Your task to perform on an android device: Go to battery settings Image 0: 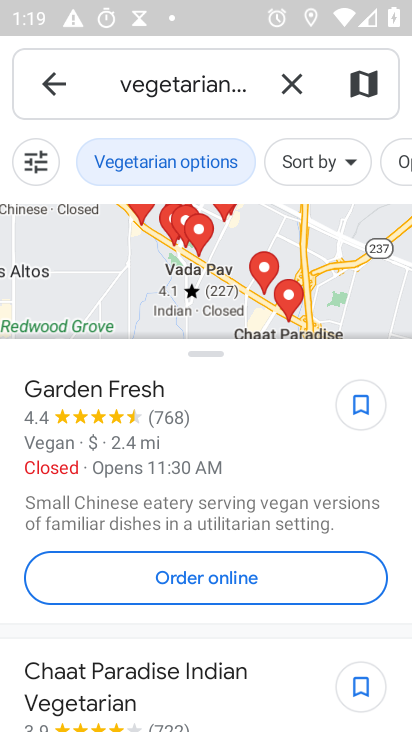
Step 0: press home button
Your task to perform on an android device: Go to battery settings Image 1: 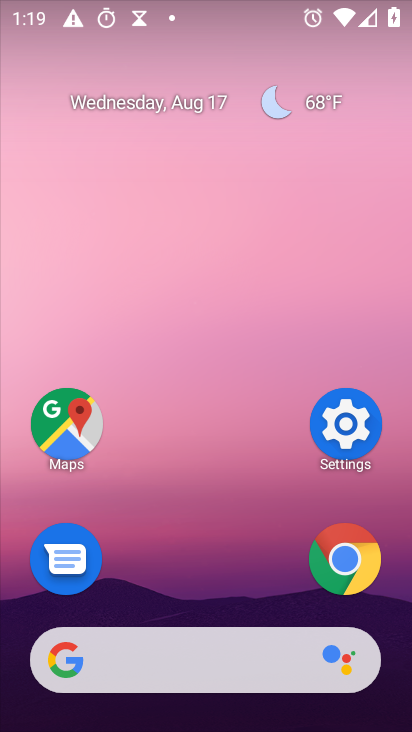
Step 1: click (350, 435)
Your task to perform on an android device: Go to battery settings Image 2: 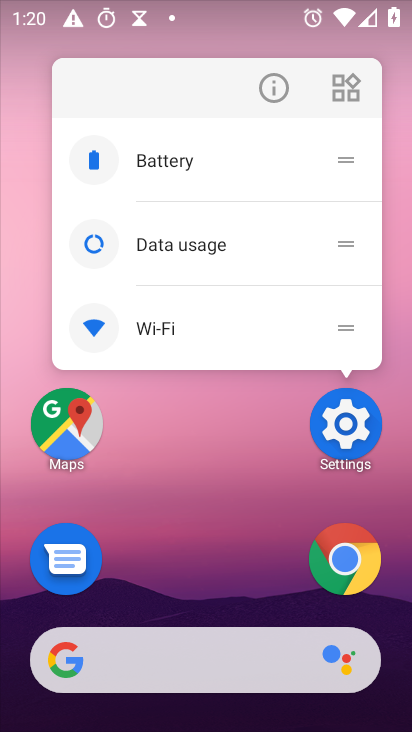
Step 2: click (350, 435)
Your task to perform on an android device: Go to battery settings Image 3: 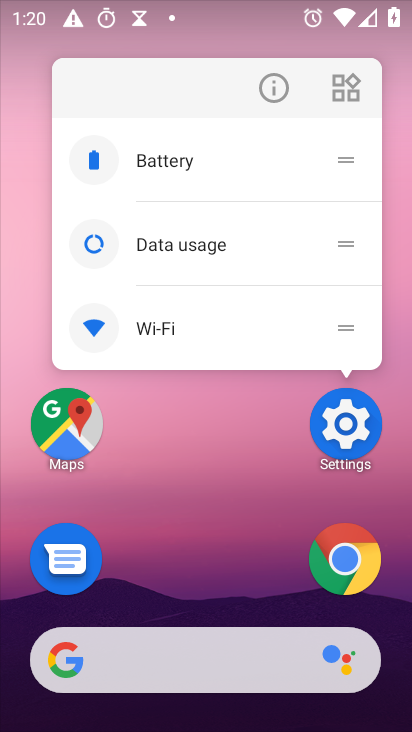
Step 3: click (350, 434)
Your task to perform on an android device: Go to battery settings Image 4: 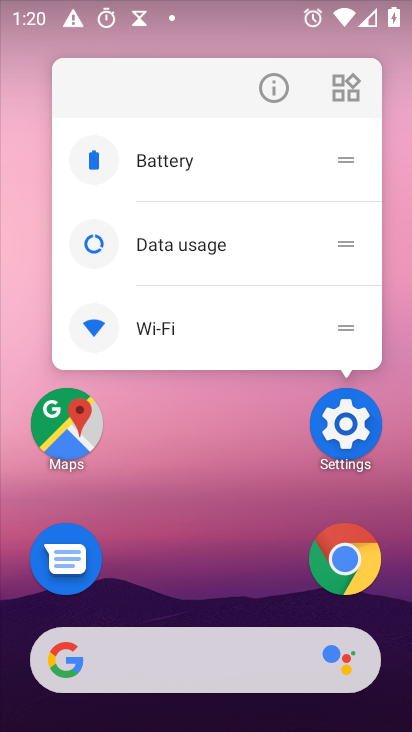
Step 4: click (347, 425)
Your task to perform on an android device: Go to battery settings Image 5: 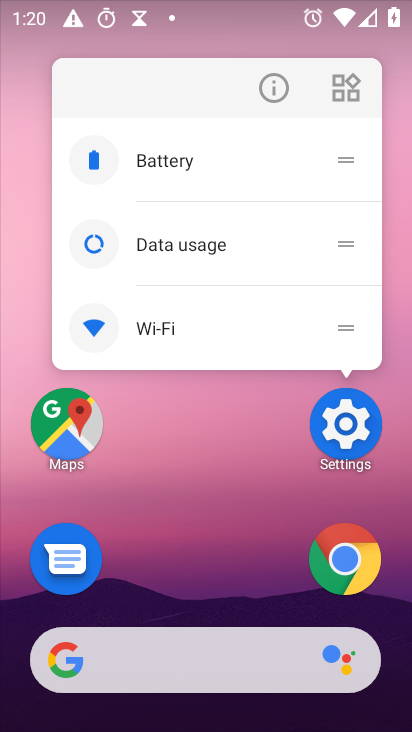
Step 5: click (345, 424)
Your task to perform on an android device: Go to battery settings Image 6: 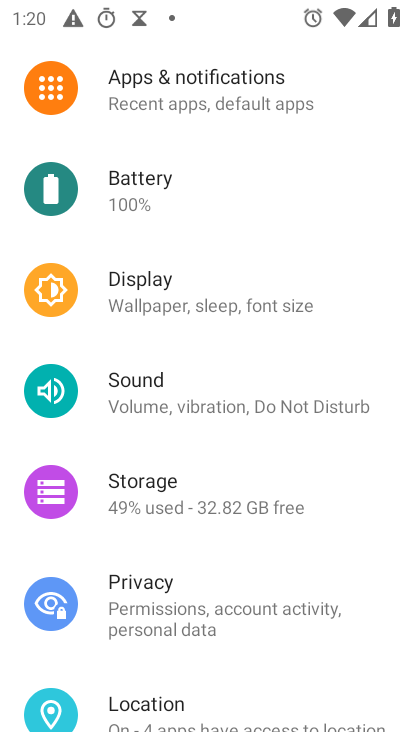
Step 6: click (132, 197)
Your task to perform on an android device: Go to battery settings Image 7: 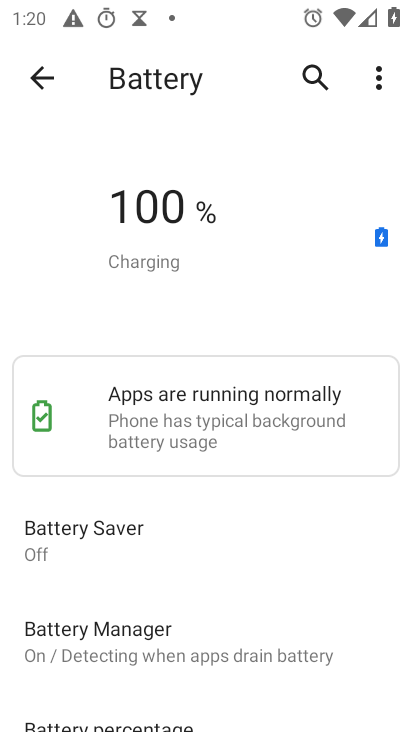
Step 7: task complete